Your task to perform on an android device: Play the last video I watched on Youtube Image 0: 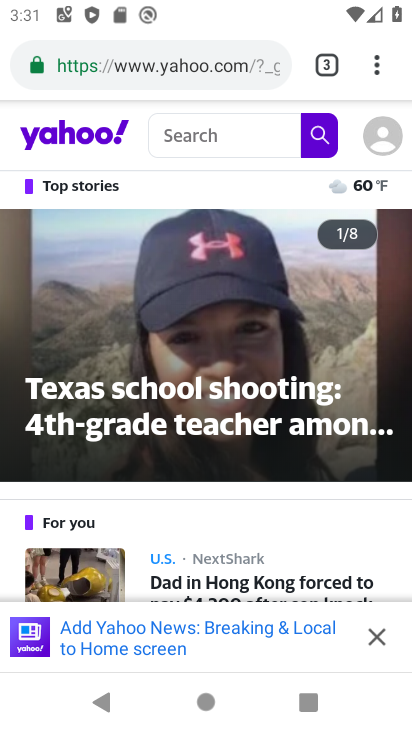
Step 0: press home button
Your task to perform on an android device: Play the last video I watched on Youtube Image 1: 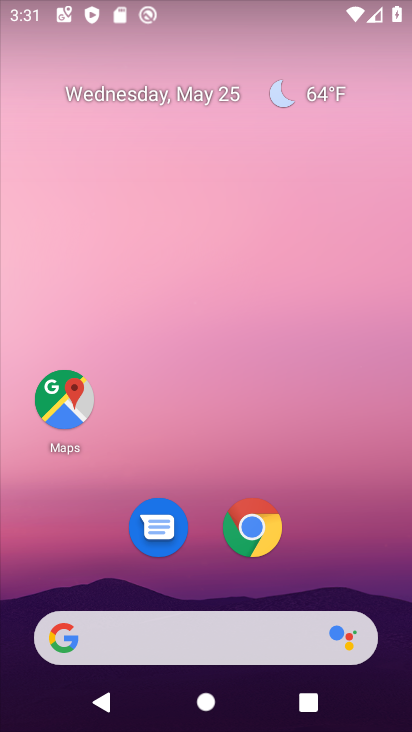
Step 1: drag from (159, 615) to (254, 65)
Your task to perform on an android device: Play the last video I watched on Youtube Image 2: 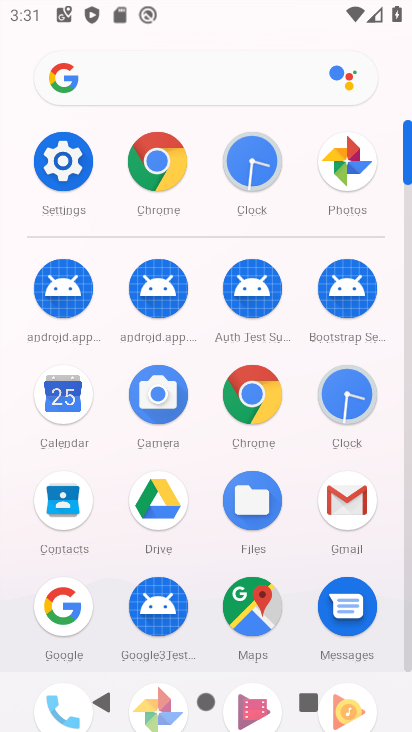
Step 2: drag from (197, 536) to (261, 52)
Your task to perform on an android device: Play the last video I watched on Youtube Image 3: 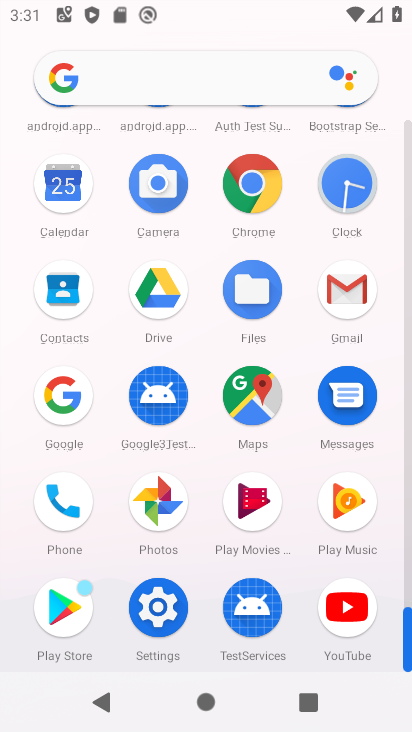
Step 3: click (344, 609)
Your task to perform on an android device: Play the last video I watched on Youtube Image 4: 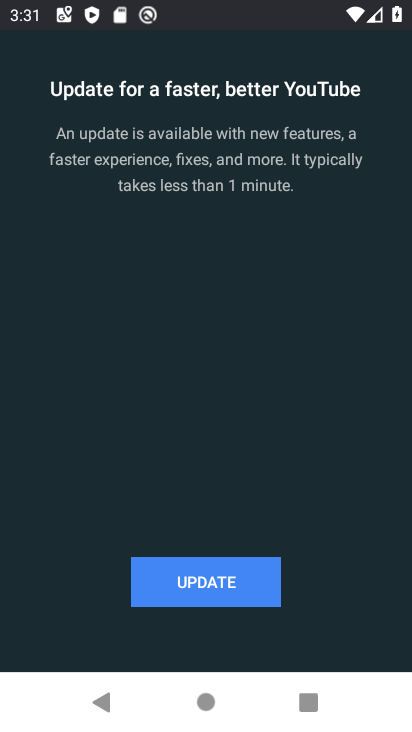
Step 4: click (212, 577)
Your task to perform on an android device: Play the last video I watched on Youtube Image 5: 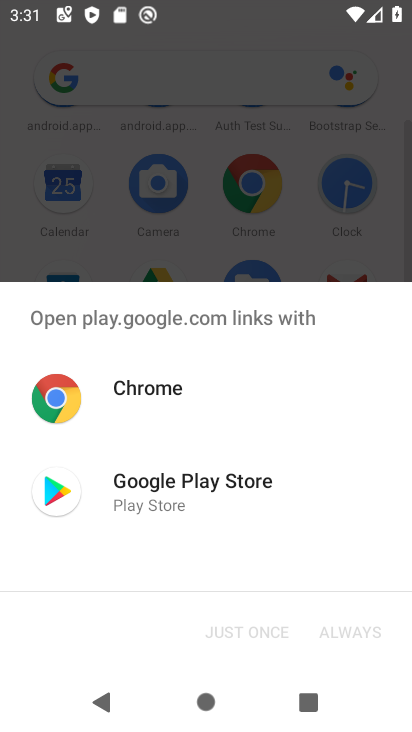
Step 5: click (166, 502)
Your task to perform on an android device: Play the last video I watched on Youtube Image 6: 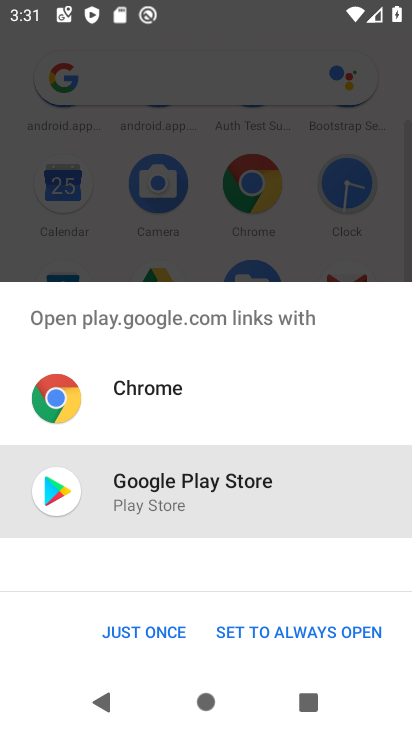
Step 6: click (151, 626)
Your task to perform on an android device: Play the last video I watched on Youtube Image 7: 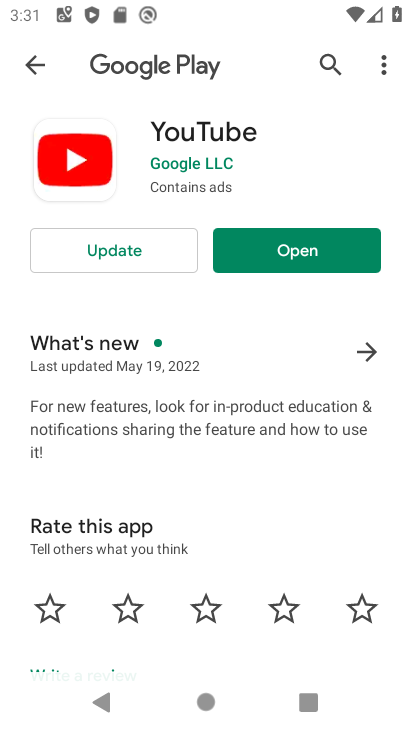
Step 7: click (123, 250)
Your task to perform on an android device: Play the last video I watched on Youtube Image 8: 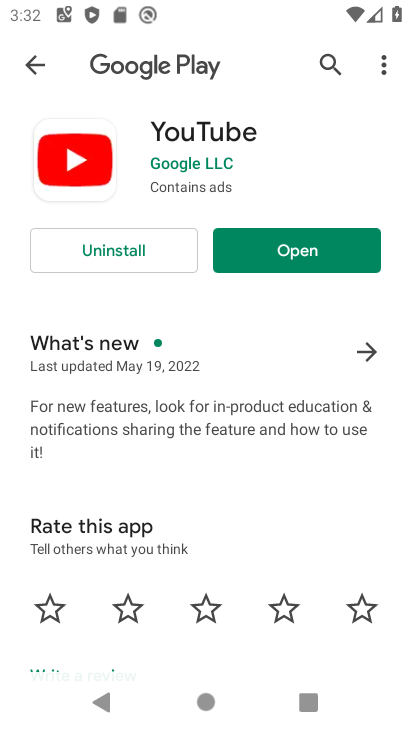
Step 8: click (301, 239)
Your task to perform on an android device: Play the last video I watched on Youtube Image 9: 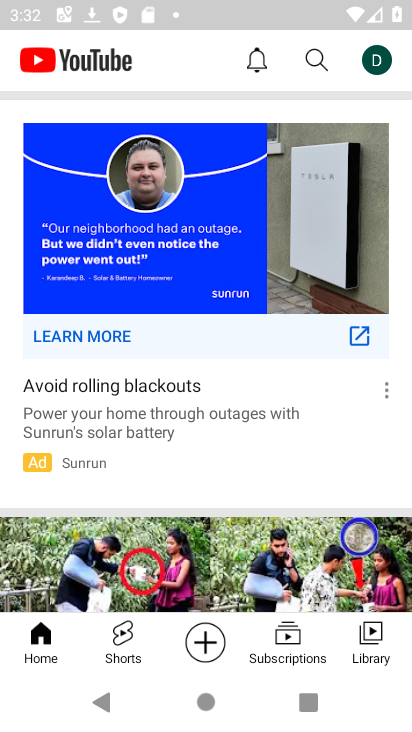
Step 9: click (373, 644)
Your task to perform on an android device: Play the last video I watched on Youtube Image 10: 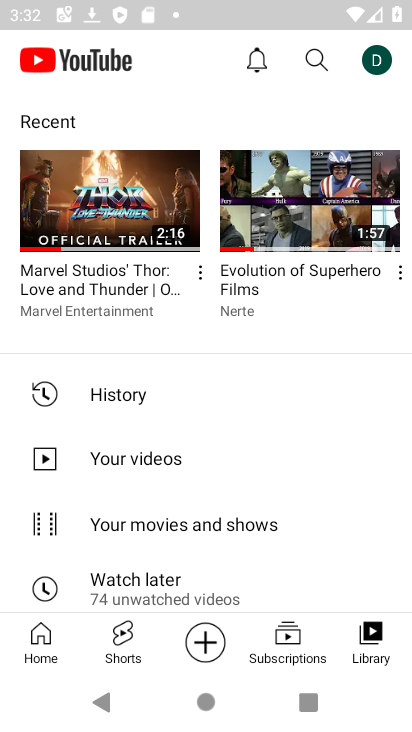
Step 10: click (117, 203)
Your task to perform on an android device: Play the last video I watched on Youtube Image 11: 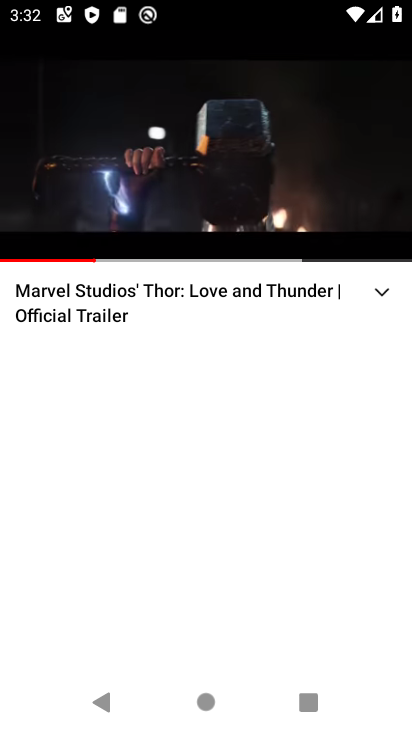
Step 11: task complete